Your task to perform on an android device: Do I have any events this weekend? Image 0: 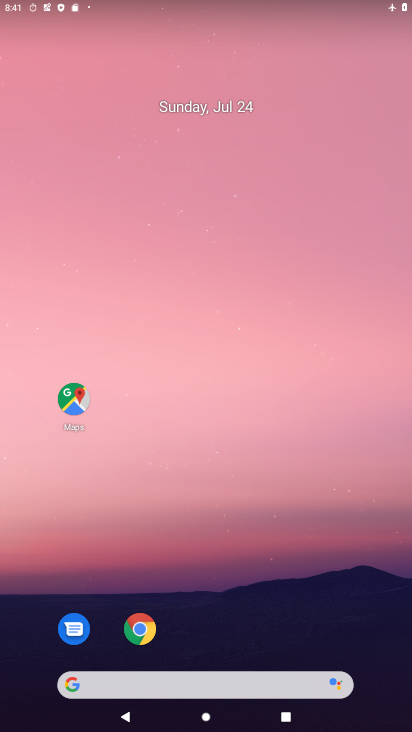
Step 0: drag from (187, 708) to (198, 144)
Your task to perform on an android device: Do I have any events this weekend? Image 1: 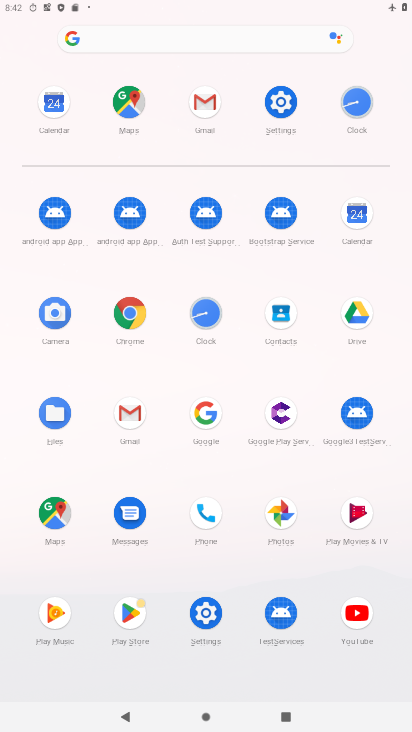
Step 1: click (368, 234)
Your task to perform on an android device: Do I have any events this weekend? Image 2: 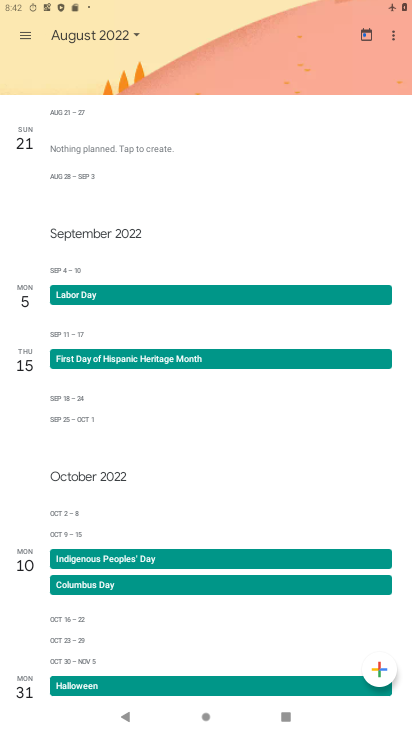
Step 2: click (124, 40)
Your task to perform on an android device: Do I have any events this weekend? Image 3: 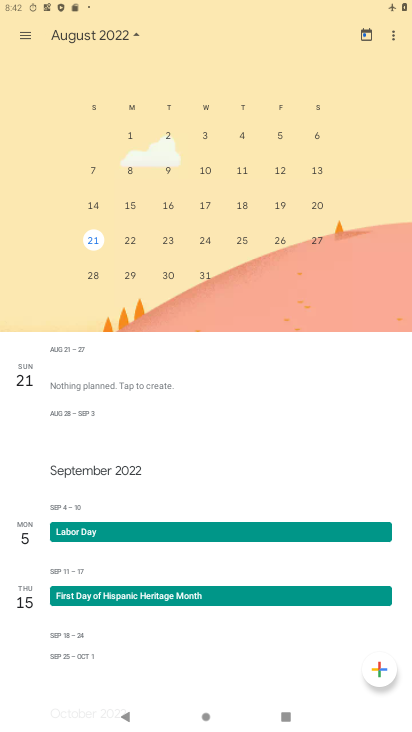
Step 3: drag from (61, 202) to (407, 250)
Your task to perform on an android device: Do I have any events this weekend? Image 4: 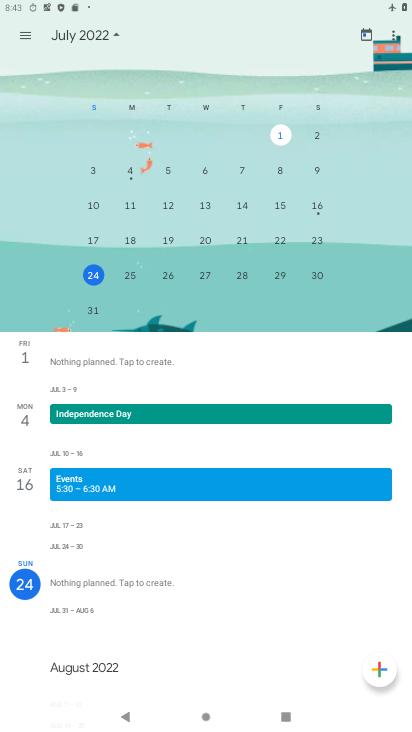
Step 4: click (90, 275)
Your task to perform on an android device: Do I have any events this weekend? Image 5: 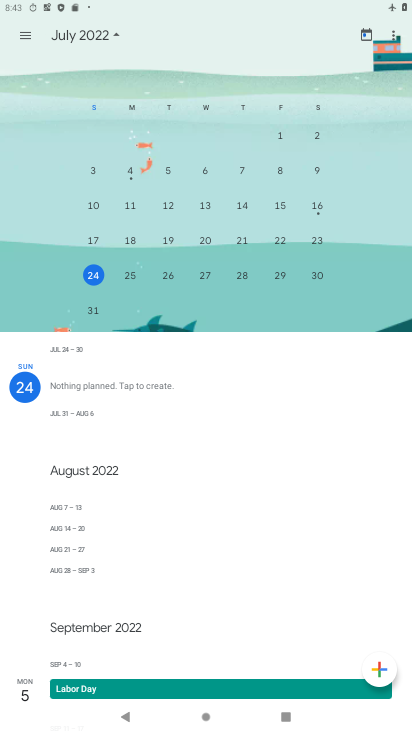
Step 5: task complete